Your task to perform on an android device: Open internet settings Image 0: 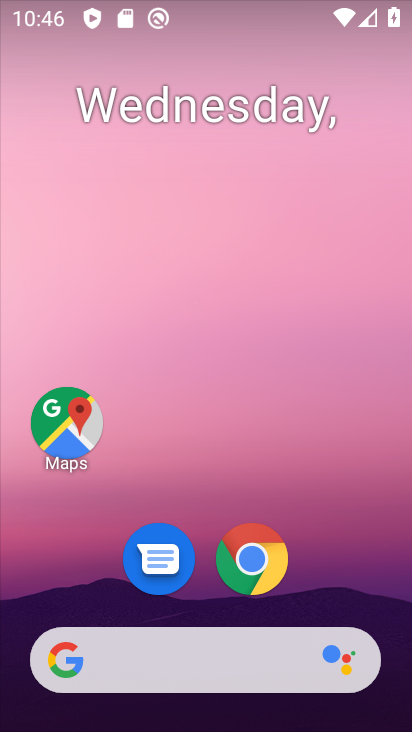
Step 0: drag from (204, 538) to (263, 255)
Your task to perform on an android device: Open internet settings Image 1: 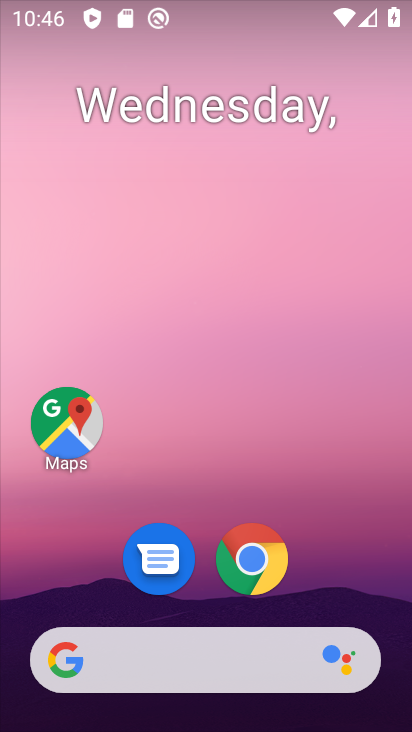
Step 1: drag from (197, 607) to (269, 218)
Your task to perform on an android device: Open internet settings Image 2: 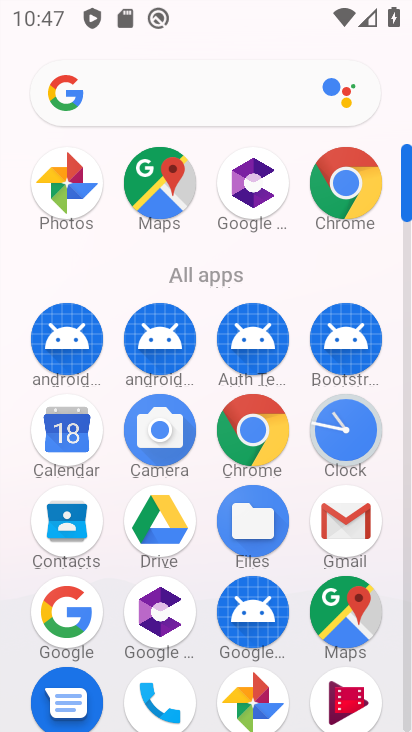
Step 2: drag from (203, 568) to (228, 259)
Your task to perform on an android device: Open internet settings Image 3: 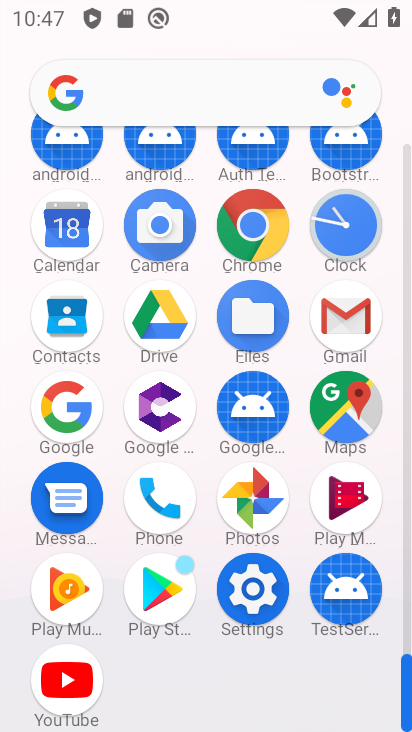
Step 3: click (257, 589)
Your task to perform on an android device: Open internet settings Image 4: 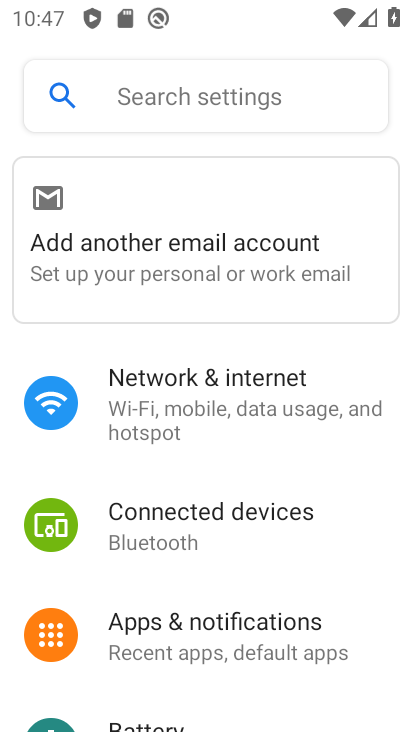
Step 4: click (172, 389)
Your task to perform on an android device: Open internet settings Image 5: 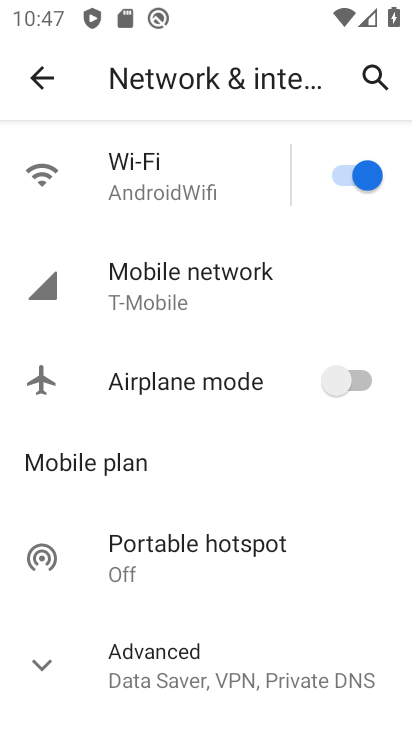
Step 5: click (147, 211)
Your task to perform on an android device: Open internet settings Image 6: 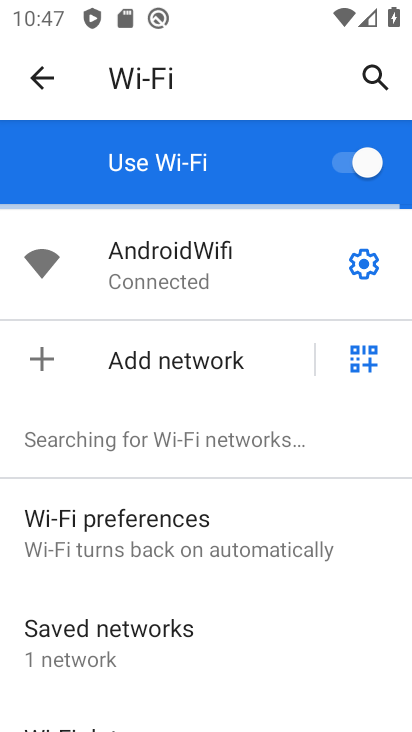
Step 6: task complete